Your task to perform on an android device: Clear the cart on amazon. Add "razer huntsman" to the cart on amazon, then select checkout. Image 0: 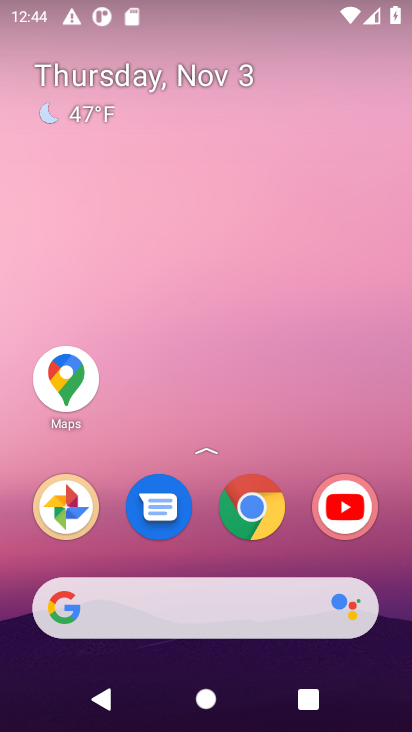
Step 0: click (173, 598)
Your task to perform on an android device: Clear the cart on amazon. Add "razer huntsman" to the cart on amazon, then select checkout. Image 1: 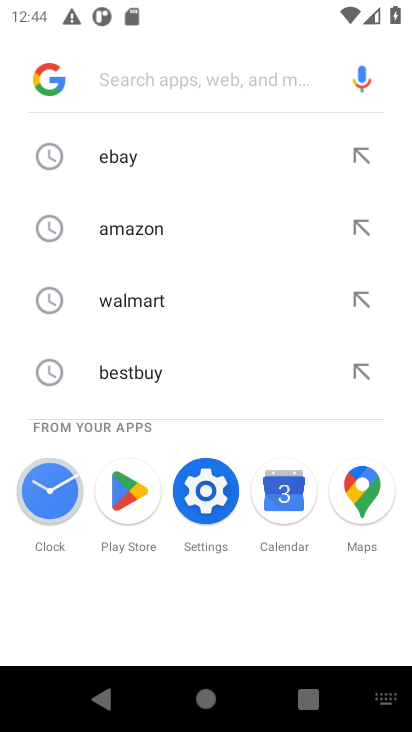
Step 1: type "amazon"
Your task to perform on an android device: Clear the cart on amazon. Add "razer huntsman" to the cart on amazon, then select checkout. Image 2: 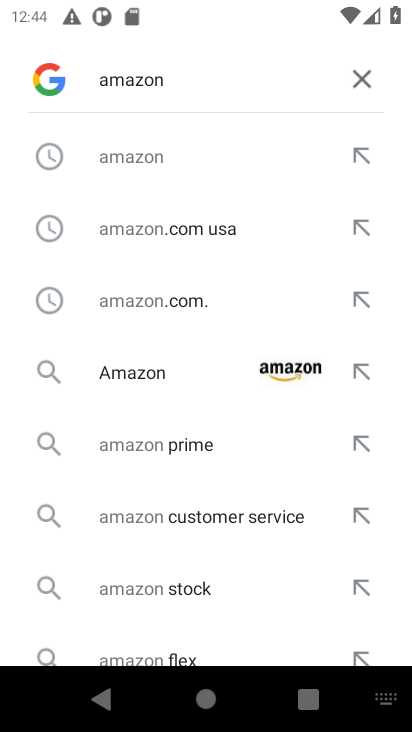
Step 2: click (175, 375)
Your task to perform on an android device: Clear the cart on amazon. Add "razer huntsman" to the cart on amazon, then select checkout. Image 3: 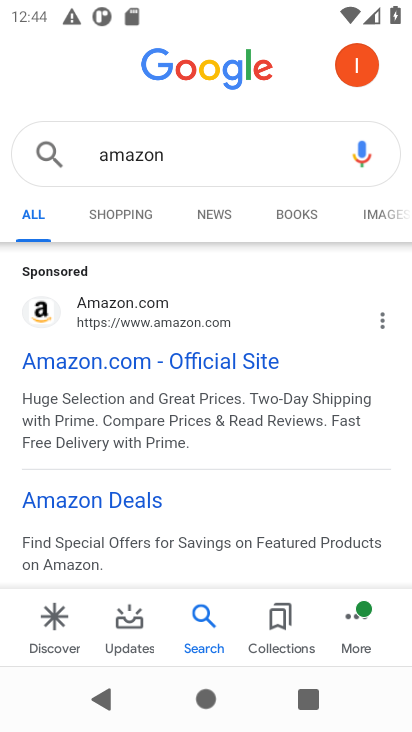
Step 3: click (149, 376)
Your task to perform on an android device: Clear the cart on amazon. Add "razer huntsman" to the cart on amazon, then select checkout. Image 4: 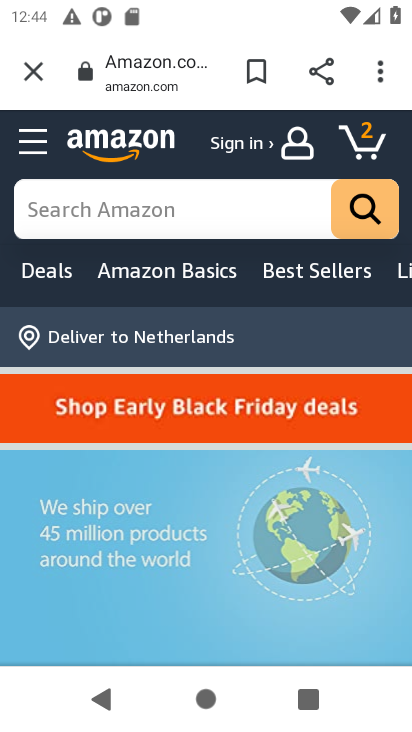
Step 4: click (146, 226)
Your task to perform on an android device: Clear the cart on amazon. Add "razer huntsman" to the cart on amazon, then select checkout. Image 5: 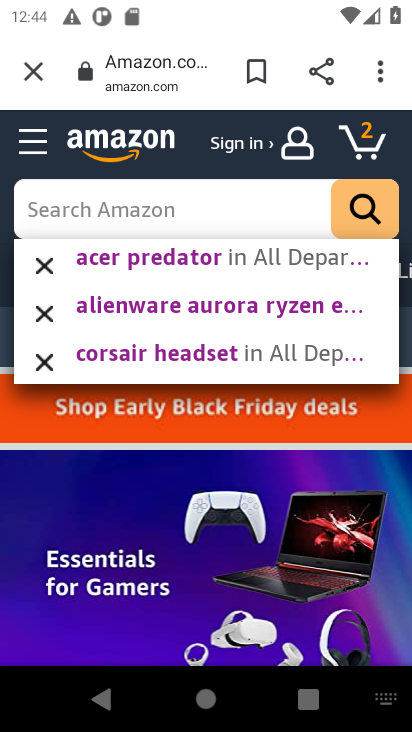
Step 5: type "razer huntsman"
Your task to perform on an android device: Clear the cart on amazon. Add "razer huntsman" to the cart on amazon, then select checkout. Image 6: 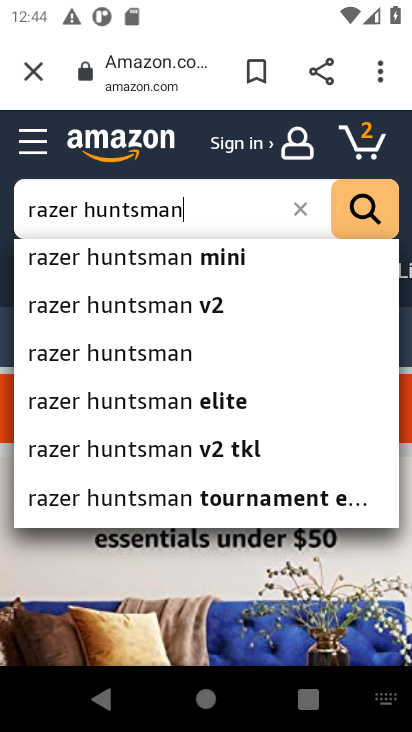
Step 6: click (255, 270)
Your task to perform on an android device: Clear the cart on amazon. Add "razer huntsman" to the cart on amazon, then select checkout. Image 7: 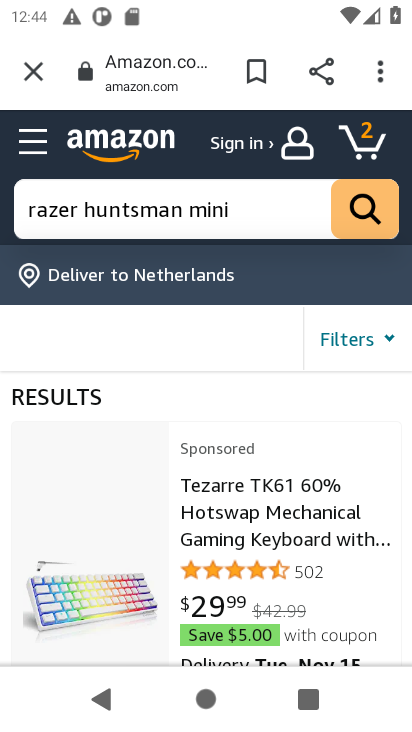
Step 7: drag from (361, 566) to (348, 326)
Your task to perform on an android device: Clear the cart on amazon. Add "razer huntsman" to the cart on amazon, then select checkout. Image 8: 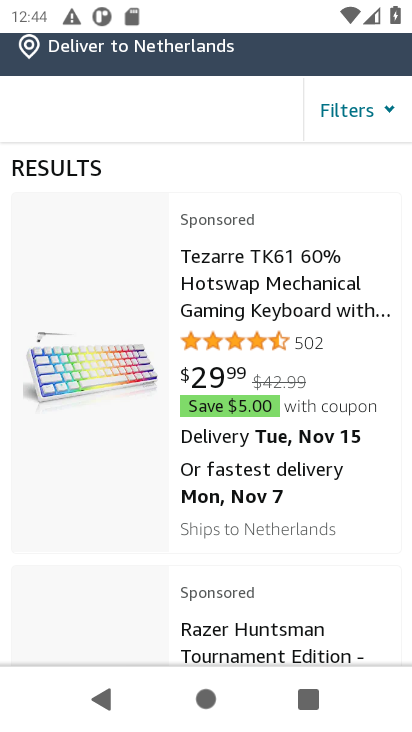
Step 8: click (294, 335)
Your task to perform on an android device: Clear the cart on amazon. Add "razer huntsman" to the cart on amazon, then select checkout. Image 9: 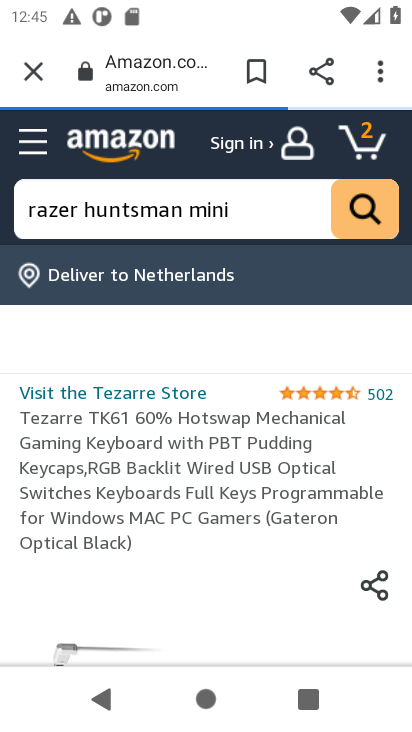
Step 9: task complete